Your task to perform on an android device: turn on notifications settings in the gmail app Image 0: 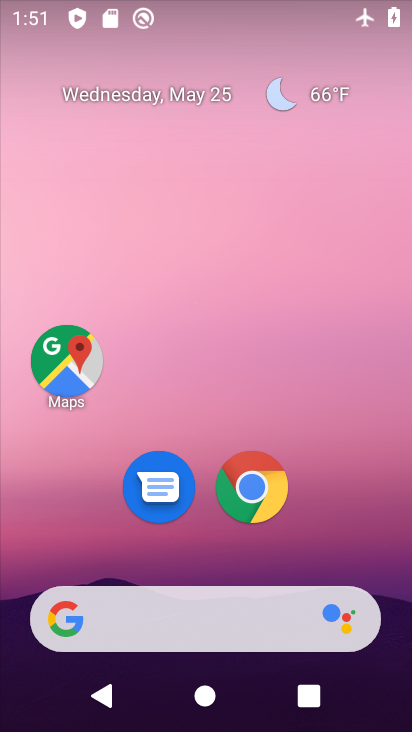
Step 0: drag from (292, 544) to (309, 33)
Your task to perform on an android device: turn on notifications settings in the gmail app Image 1: 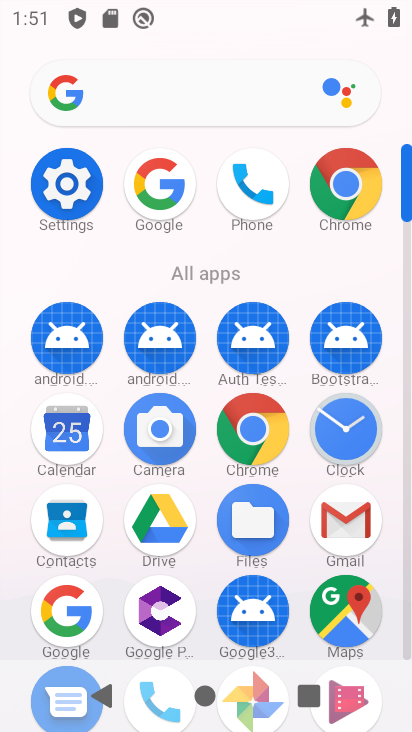
Step 1: click (354, 520)
Your task to perform on an android device: turn on notifications settings in the gmail app Image 2: 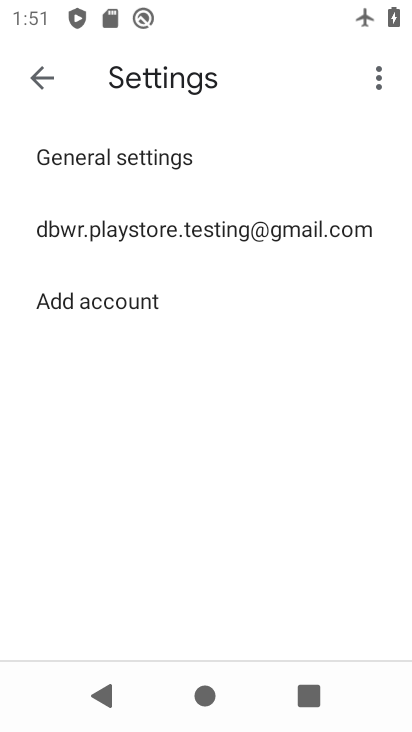
Step 2: click (161, 231)
Your task to perform on an android device: turn on notifications settings in the gmail app Image 3: 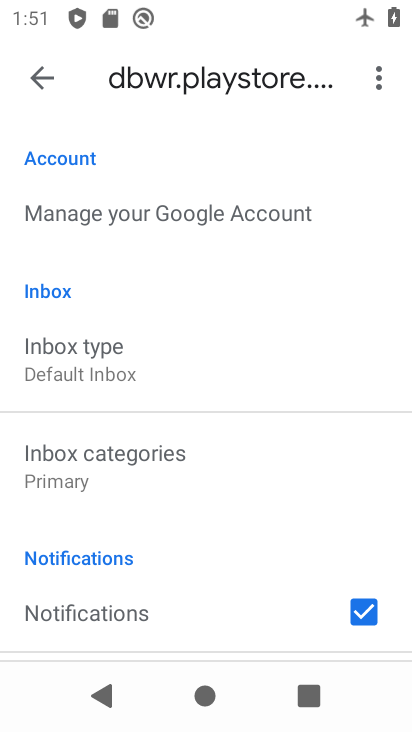
Step 3: drag from (144, 571) to (218, 179)
Your task to perform on an android device: turn on notifications settings in the gmail app Image 4: 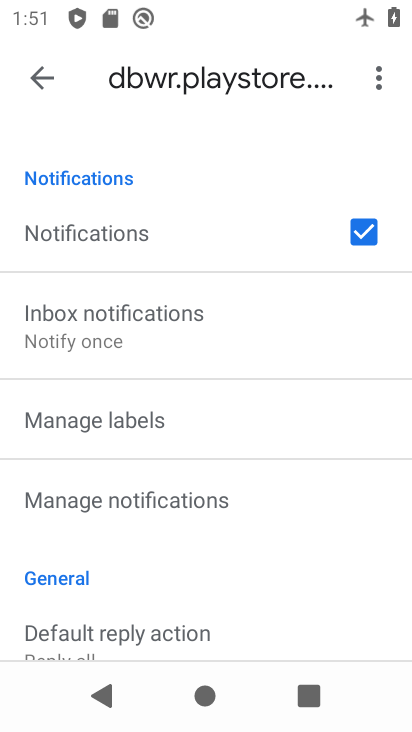
Step 4: drag from (145, 544) to (160, 246)
Your task to perform on an android device: turn on notifications settings in the gmail app Image 5: 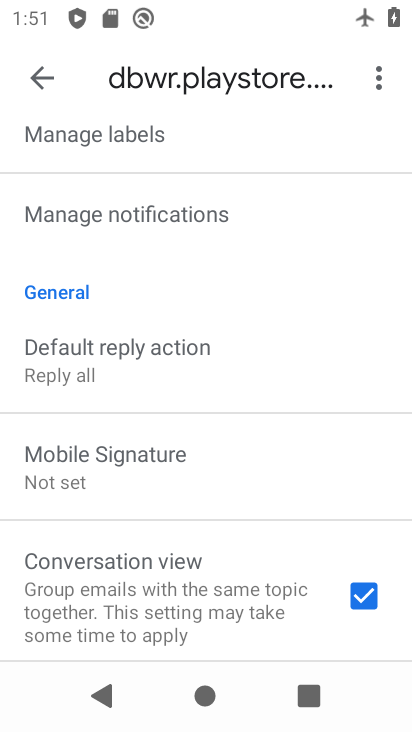
Step 5: drag from (197, 242) to (245, 609)
Your task to perform on an android device: turn on notifications settings in the gmail app Image 6: 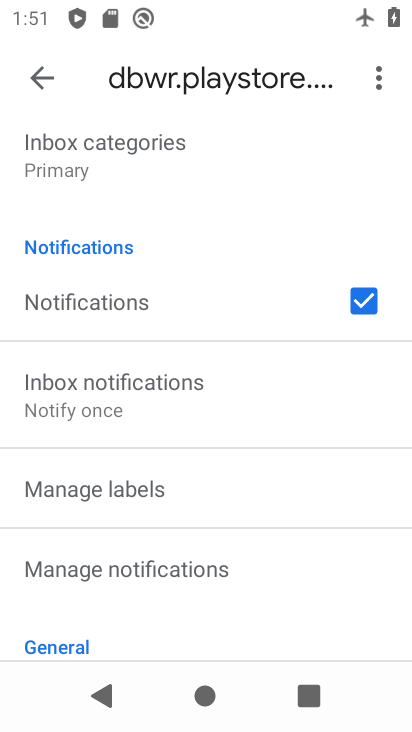
Step 6: drag from (226, 271) to (242, 731)
Your task to perform on an android device: turn on notifications settings in the gmail app Image 7: 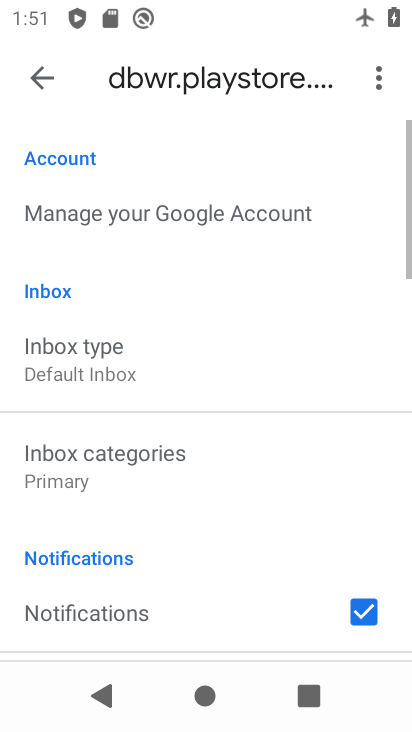
Step 7: drag from (209, 308) to (258, 730)
Your task to perform on an android device: turn on notifications settings in the gmail app Image 8: 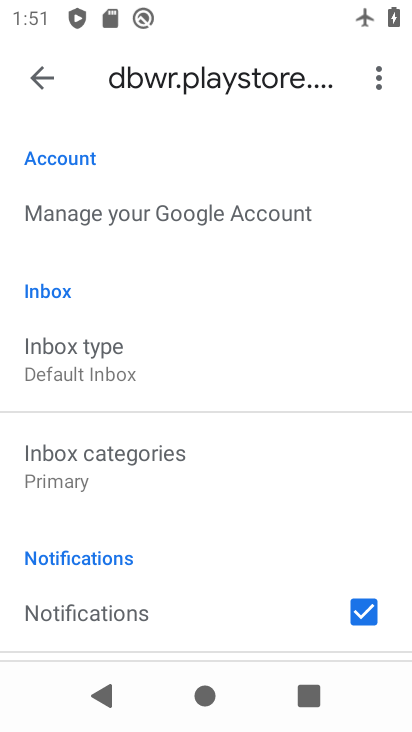
Step 8: drag from (200, 272) to (227, 576)
Your task to perform on an android device: turn on notifications settings in the gmail app Image 9: 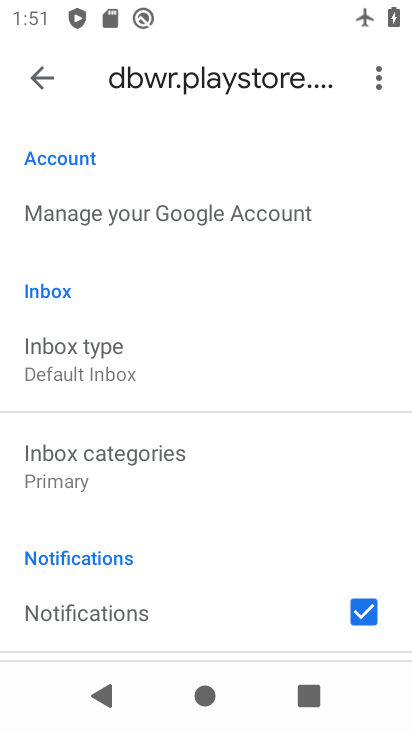
Step 9: click (72, 619)
Your task to perform on an android device: turn on notifications settings in the gmail app Image 10: 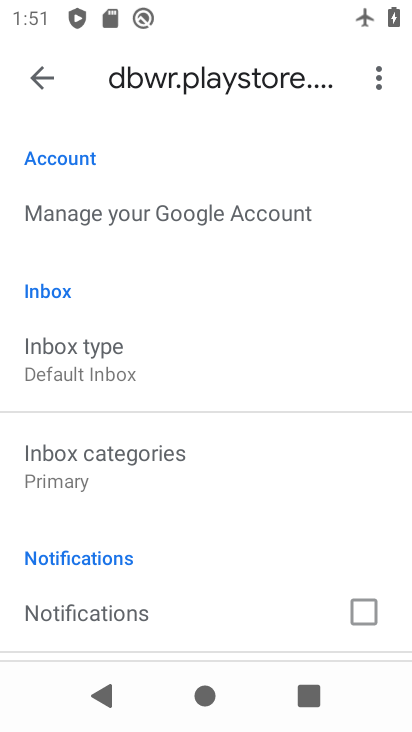
Step 10: click (360, 612)
Your task to perform on an android device: turn on notifications settings in the gmail app Image 11: 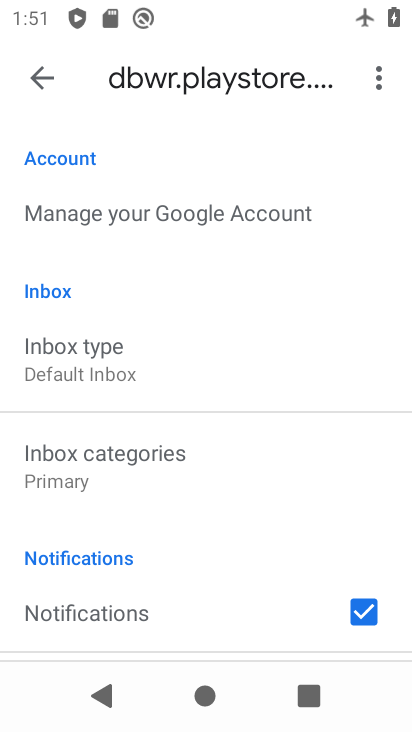
Step 11: click (41, 82)
Your task to perform on an android device: turn on notifications settings in the gmail app Image 12: 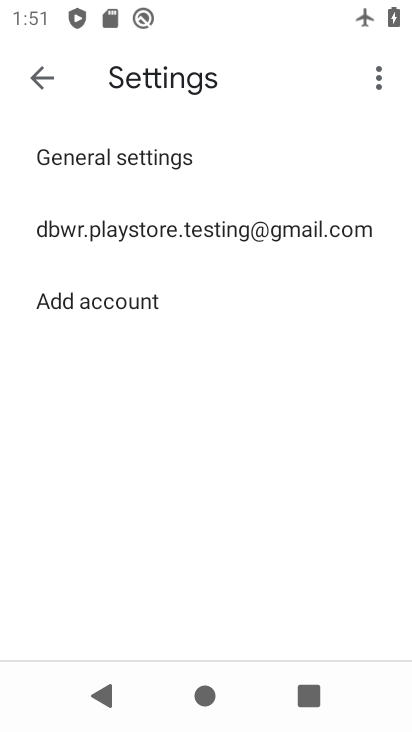
Step 12: task complete